Your task to perform on an android device: Search for Mexican restaurants on Maps Image 0: 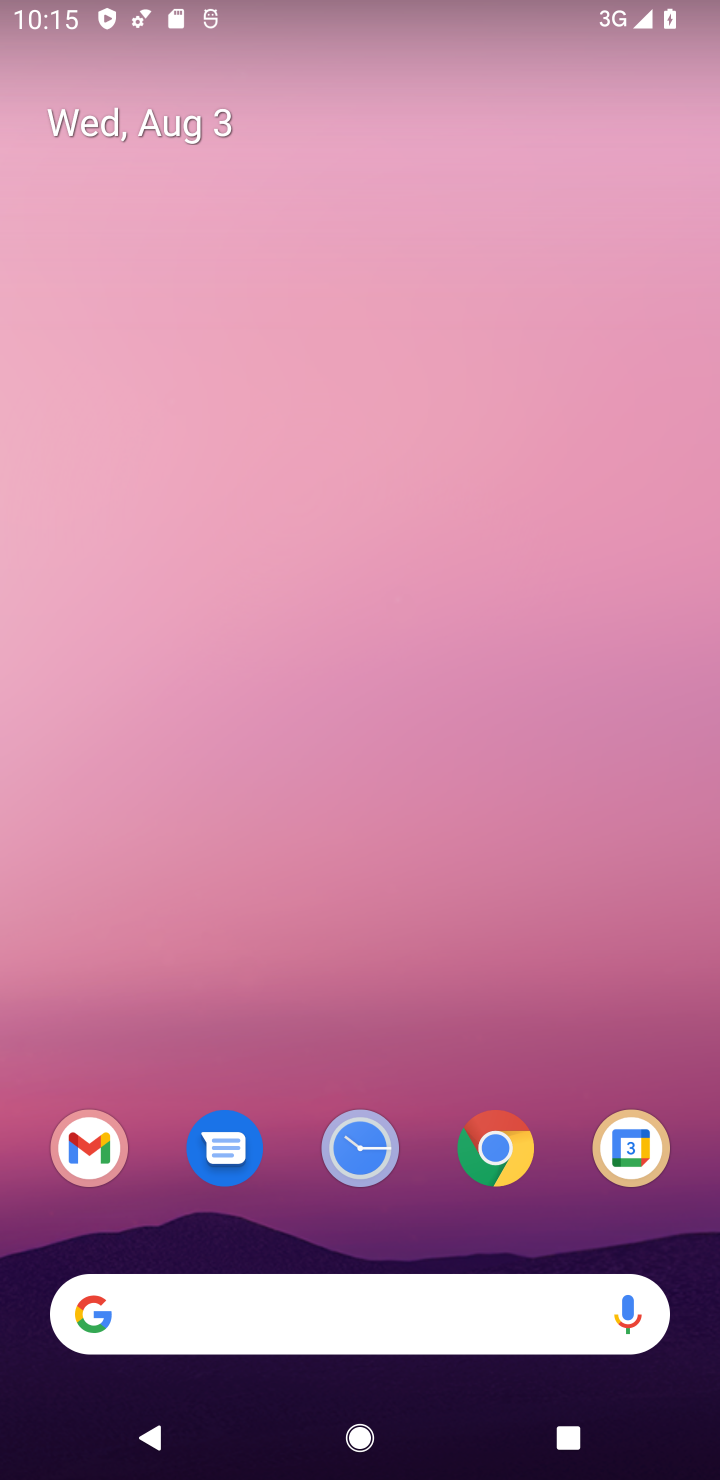
Step 0: click (383, 1310)
Your task to perform on an android device: Search for Mexican restaurants on Maps Image 1: 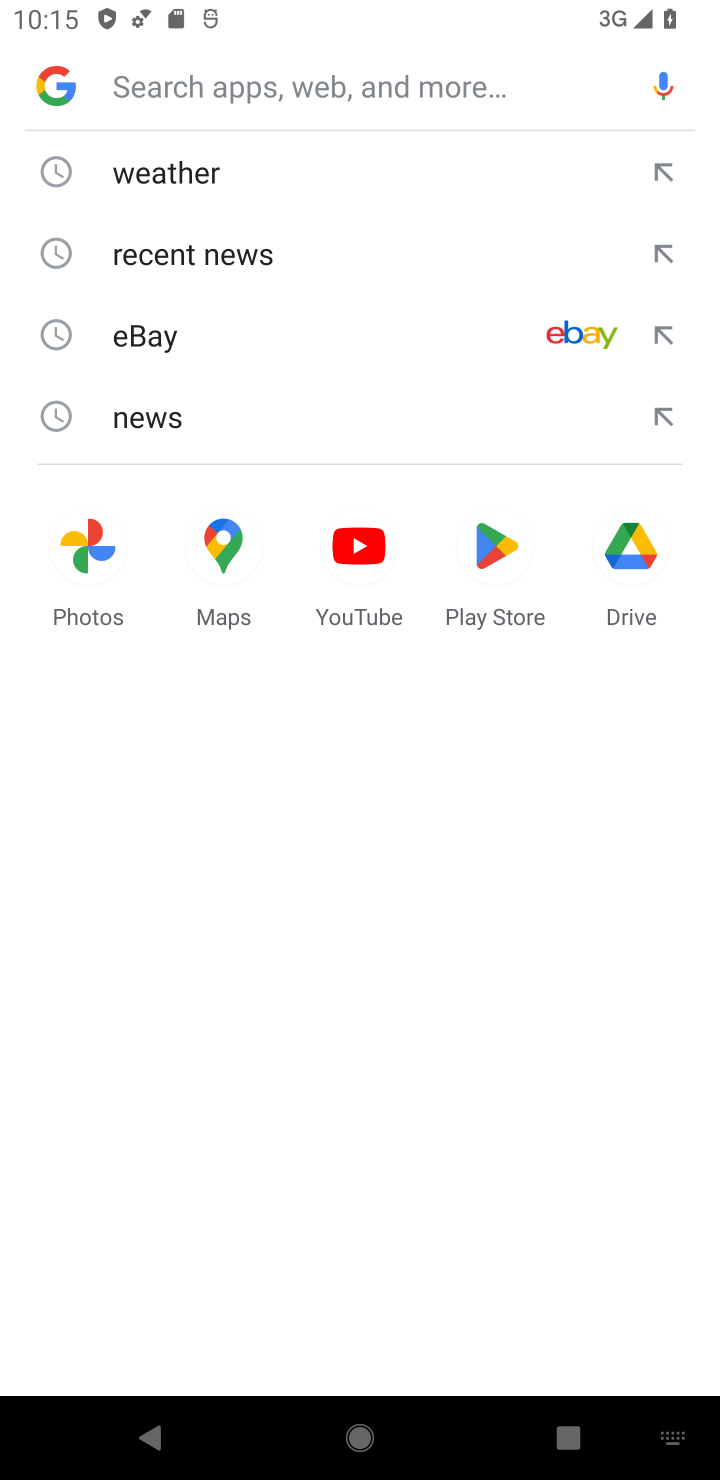
Step 1: press home button
Your task to perform on an android device: Search for Mexican restaurants on Maps Image 2: 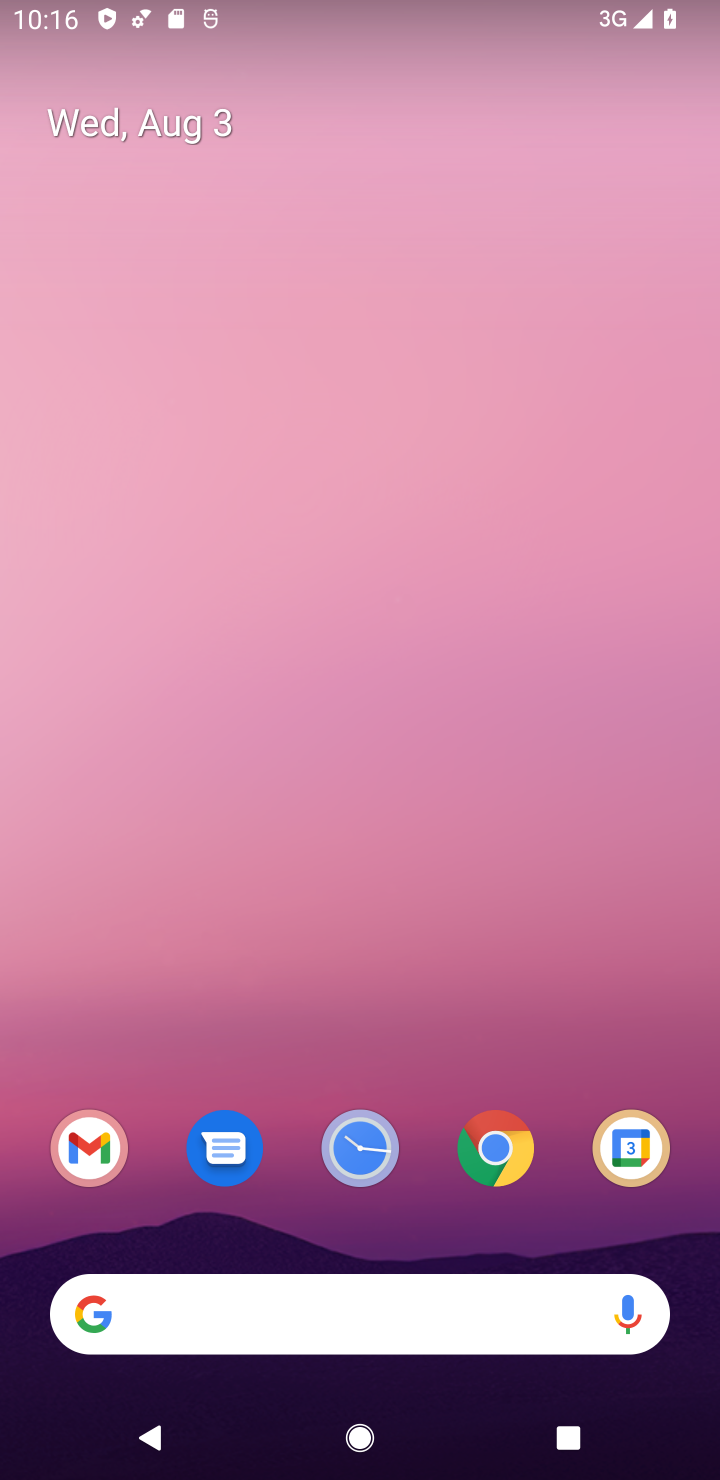
Step 2: drag from (352, 488) to (459, 63)
Your task to perform on an android device: Search for Mexican restaurants on Maps Image 3: 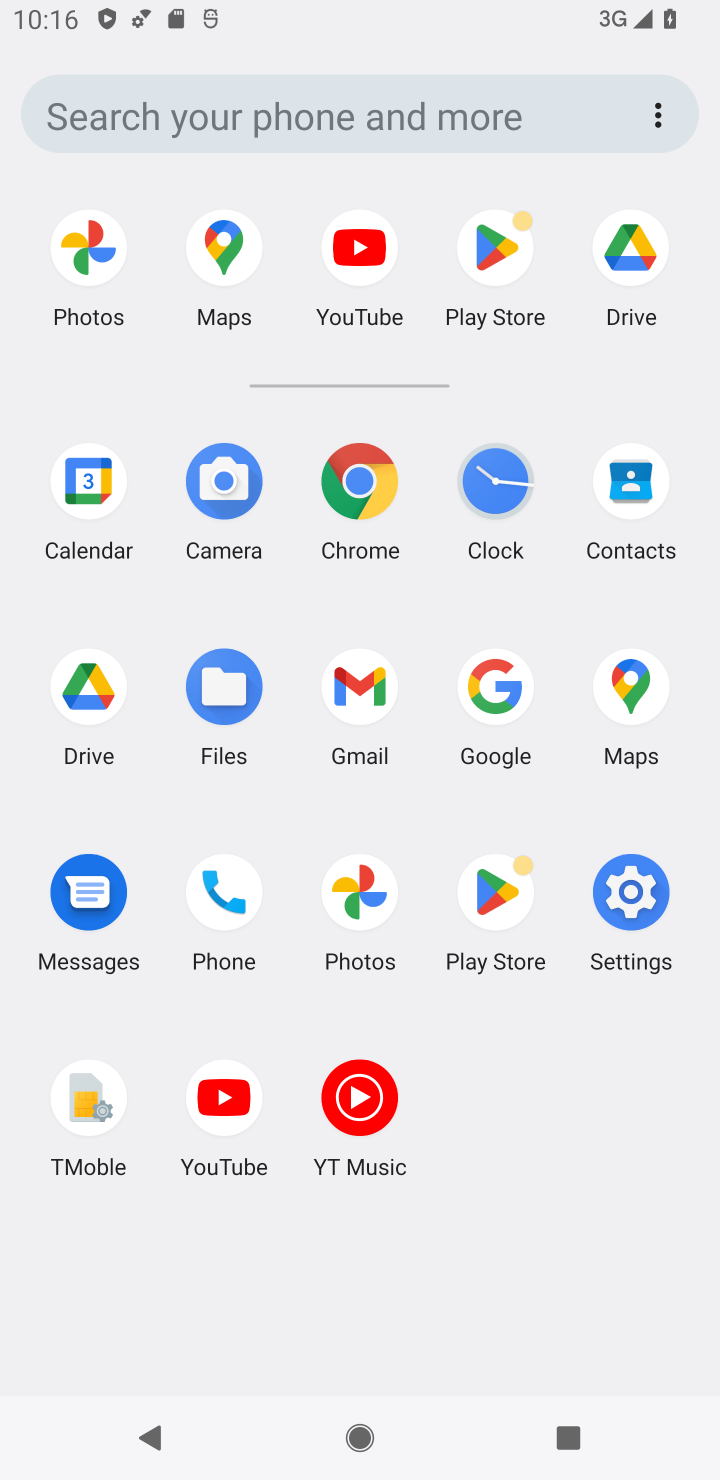
Step 3: click (220, 277)
Your task to perform on an android device: Search for Mexican restaurants on Maps Image 4: 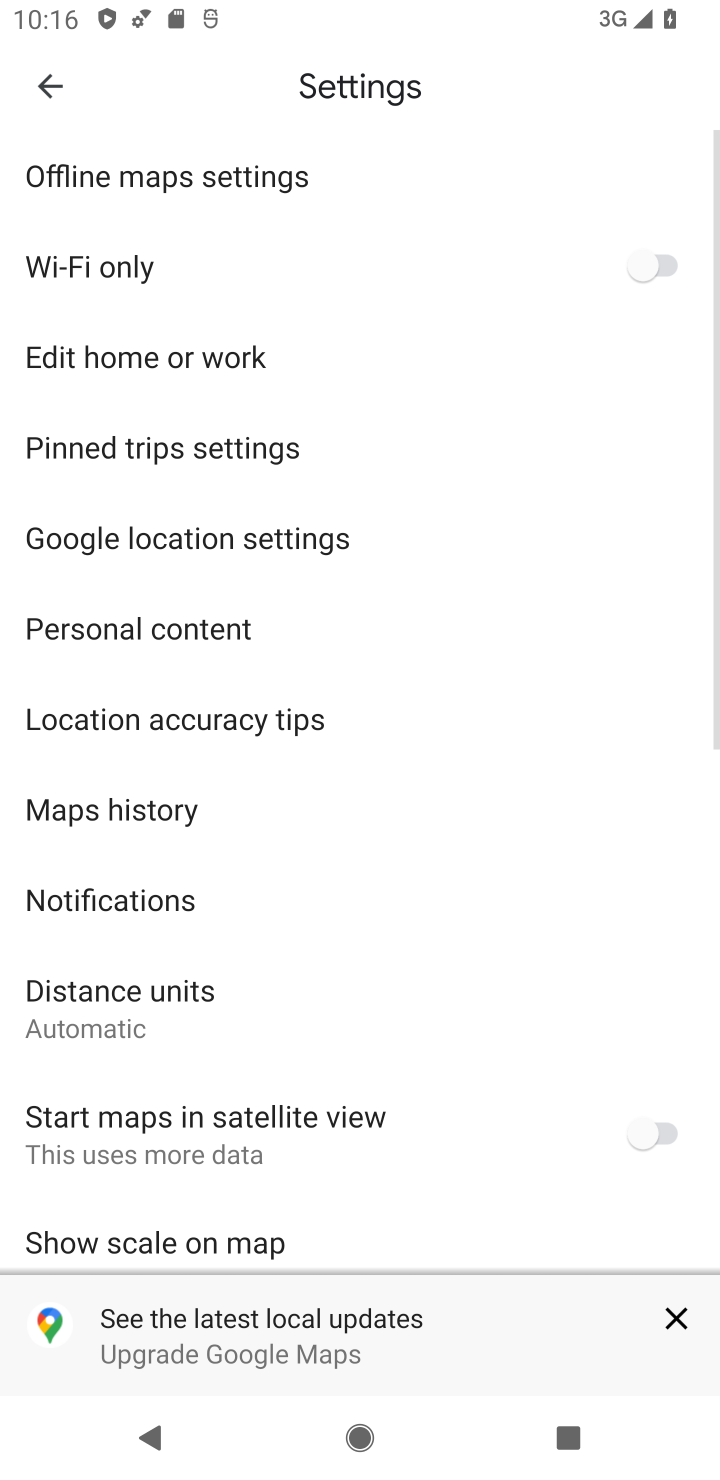
Step 4: click (40, 75)
Your task to perform on an android device: Search for Mexican restaurants on Maps Image 5: 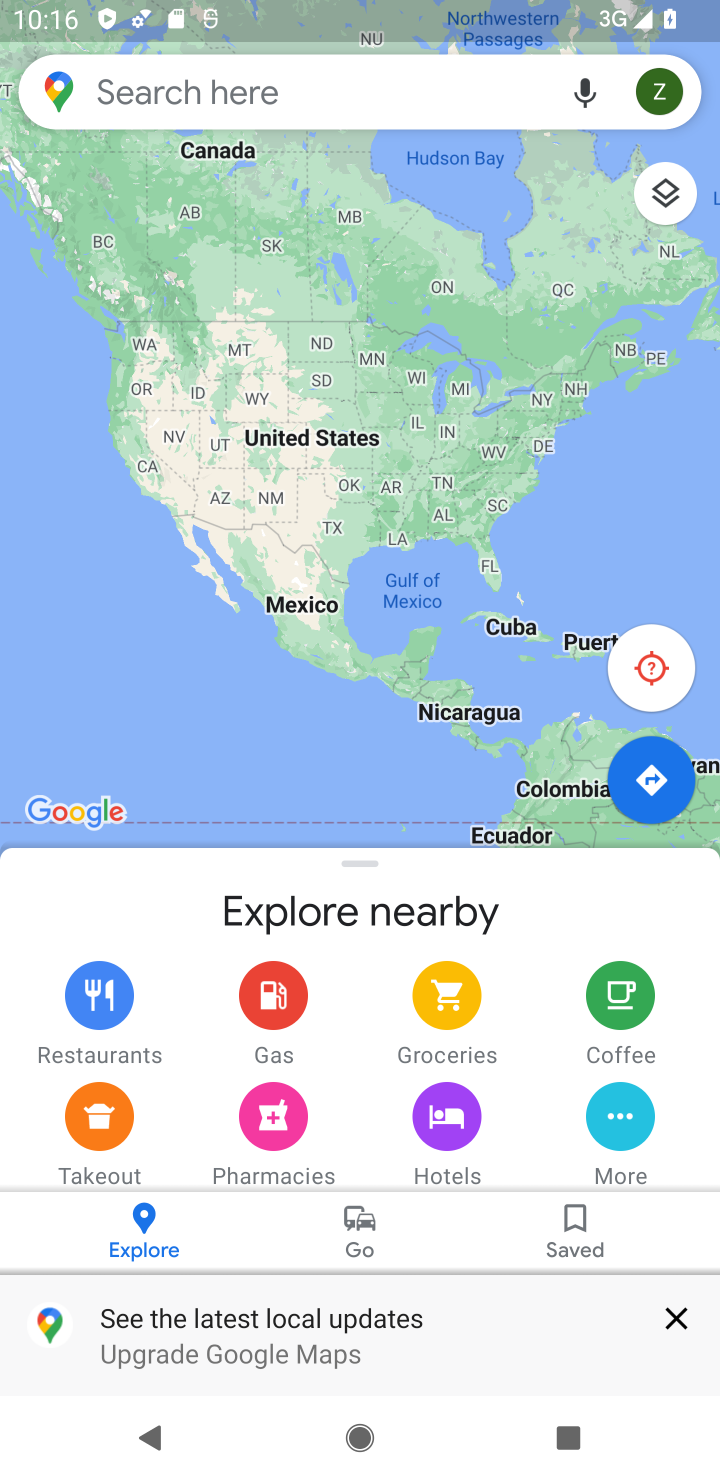
Step 5: click (354, 89)
Your task to perform on an android device: Search for Mexican restaurants on Maps Image 6: 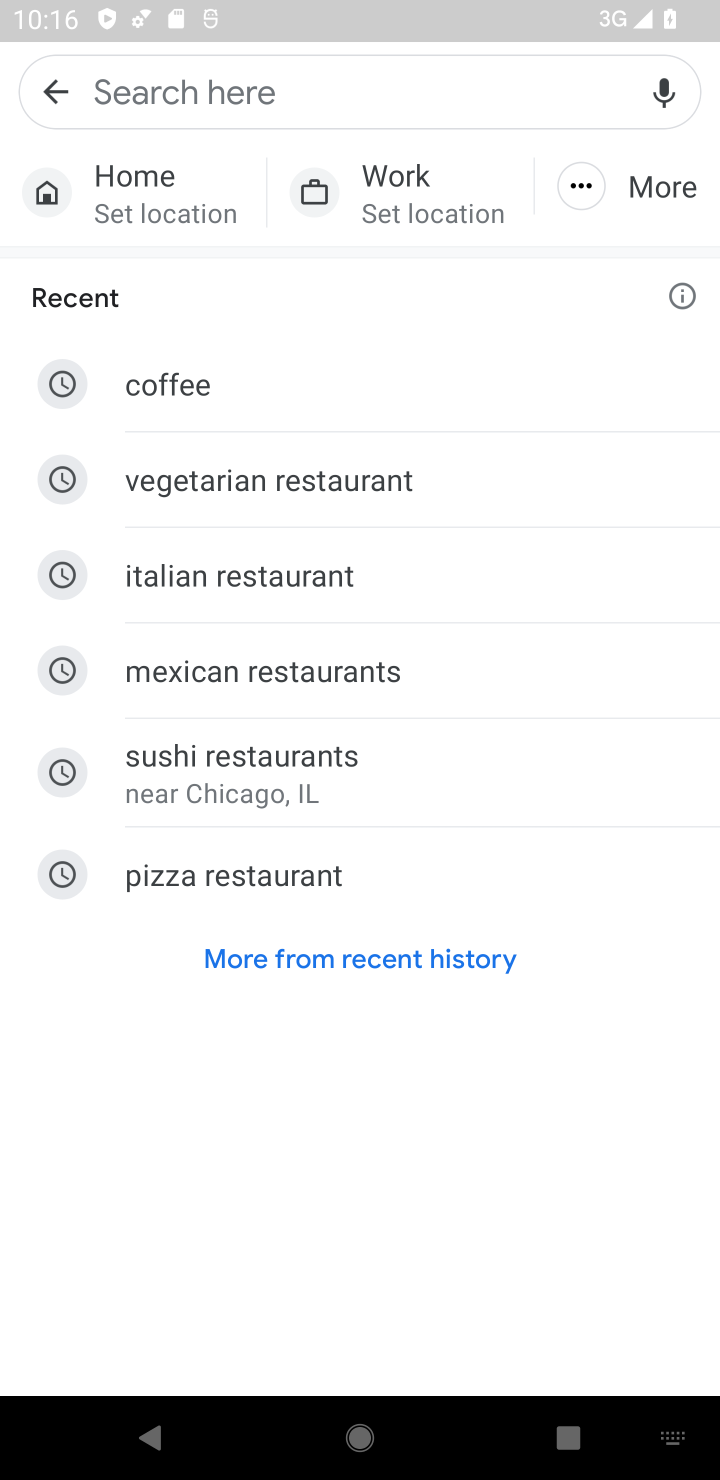
Step 6: type "Mexican restaurants "
Your task to perform on an android device: Search for Mexican restaurants on Maps Image 7: 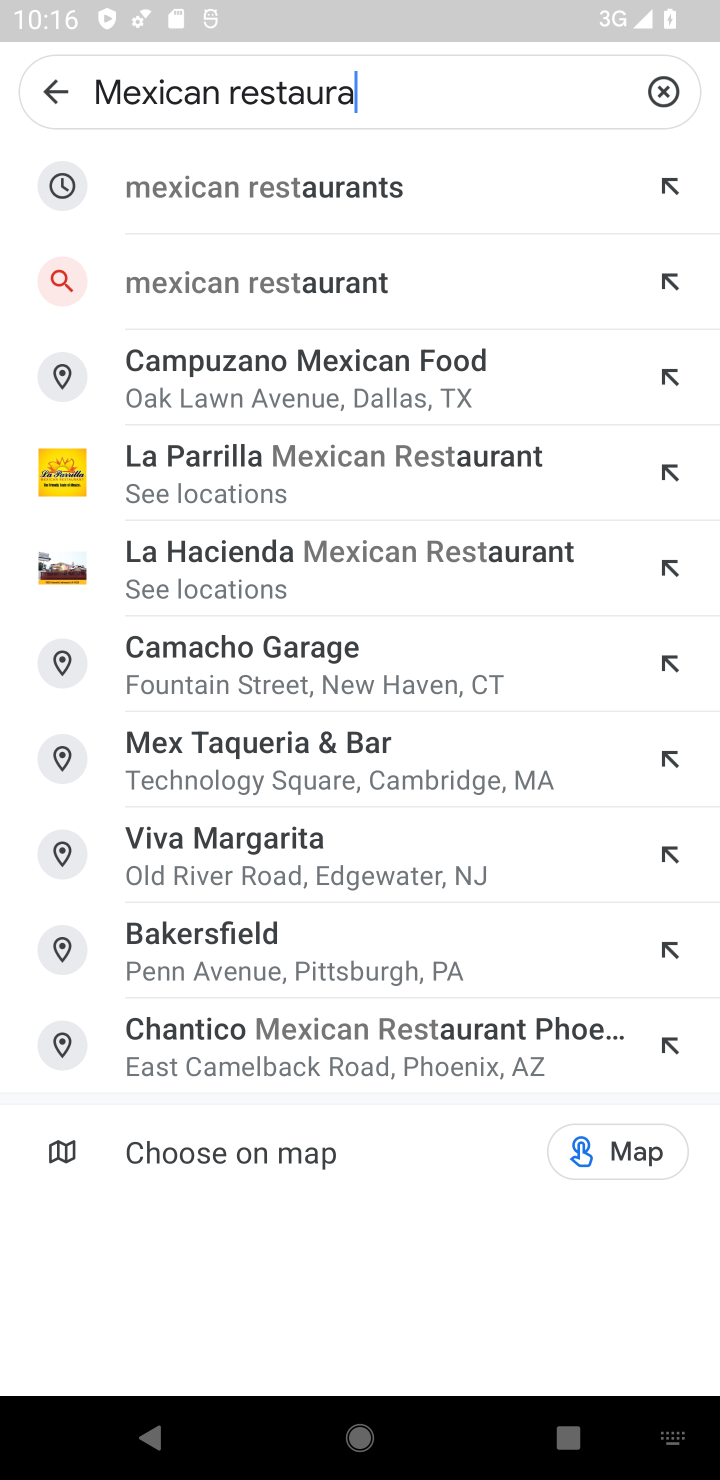
Step 7: press enter
Your task to perform on an android device: Search for Mexican restaurants on Maps Image 8: 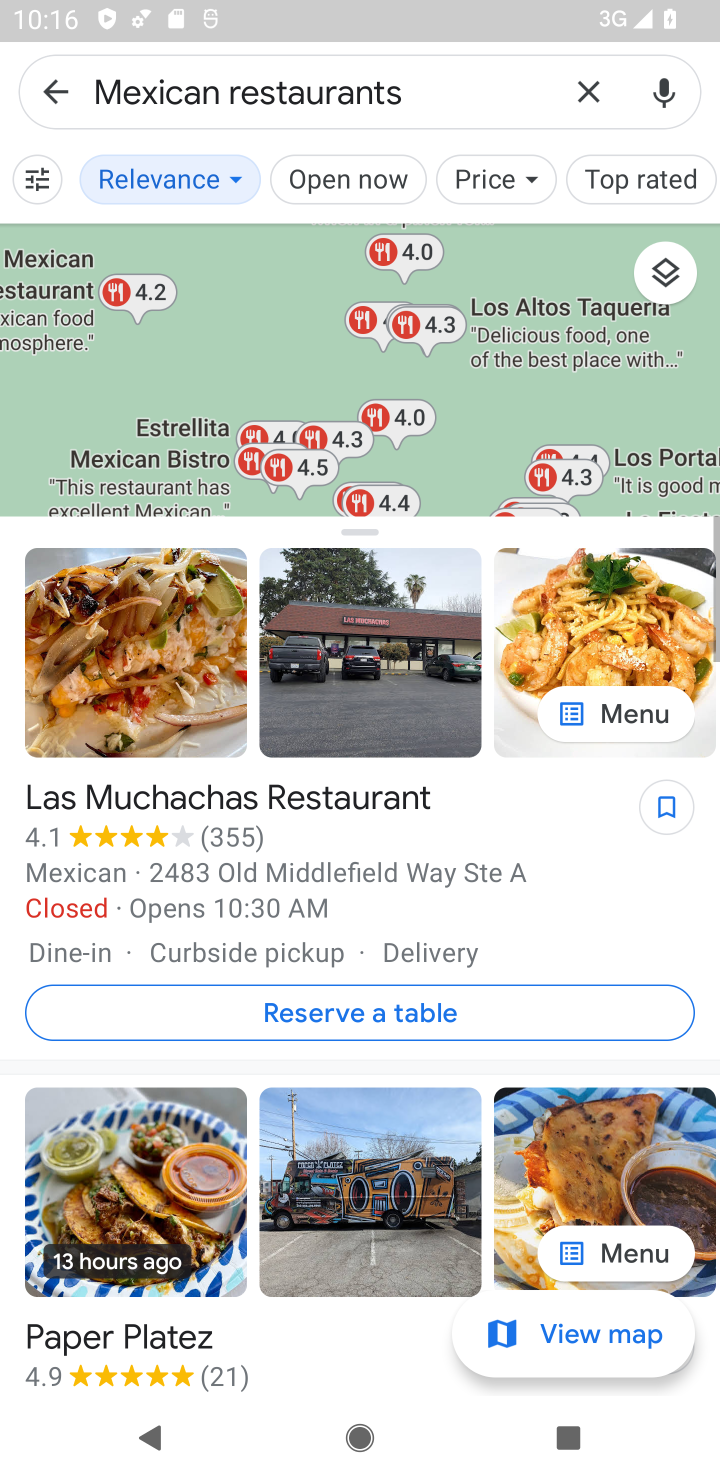
Step 8: task complete